Your task to perform on an android device: make emails show in primary in the gmail app Image 0: 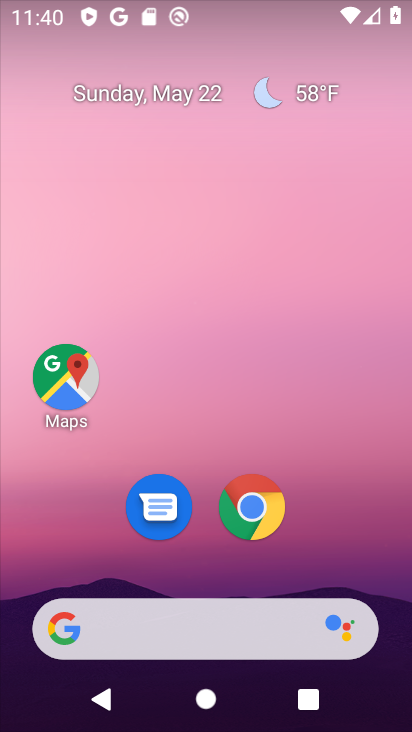
Step 0: drag from (247, 577) to (247, 138)
Your task to perform on an android device: make emails show in primary in the gmail app Image 1: 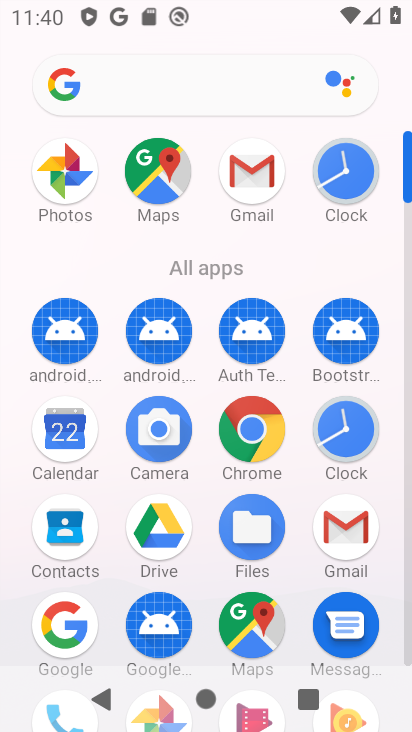
Step 1: drag from (247, 695) to (300, 126)
Your task to perform on an android device: make emails show in primary in the gmail app Image 2: 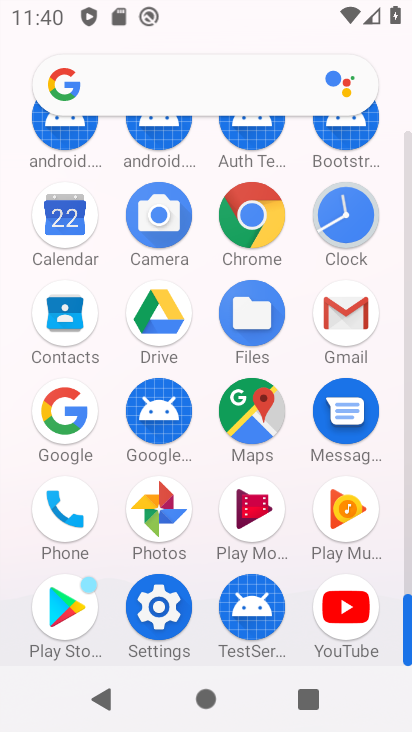
Step 2: click (354, 304)
Your task to perform on an android device: make emails show in primary in the gmail app Image 3: 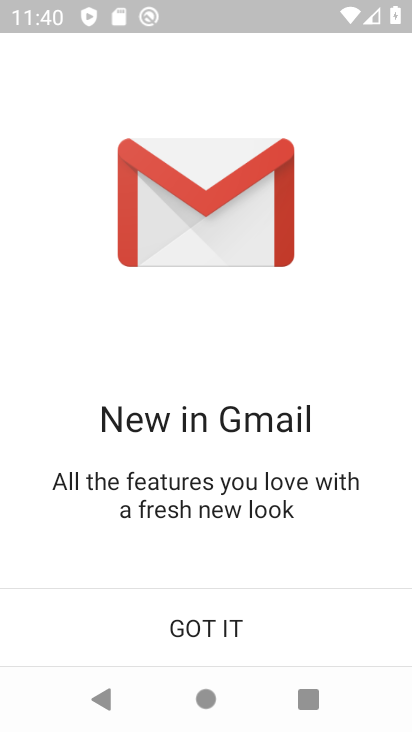
Step 3: click (237, 615)
Your task to perform on an android device: make emails show in primary in the gmail app Image 4: 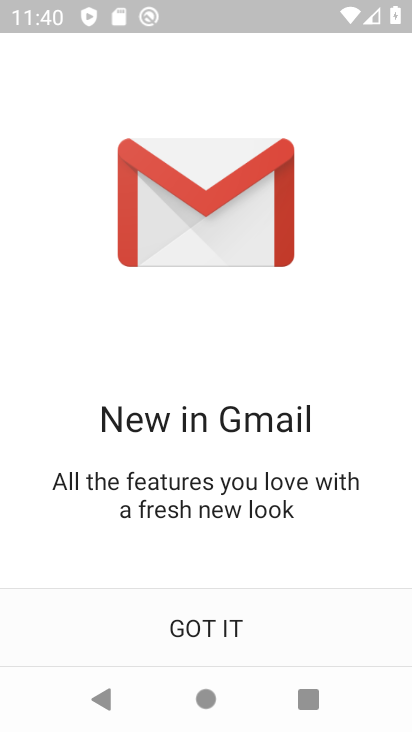
Step 4: click (237, 615)
Your task to perform on an android device: make emails show in primary in the gmail app Image 5: 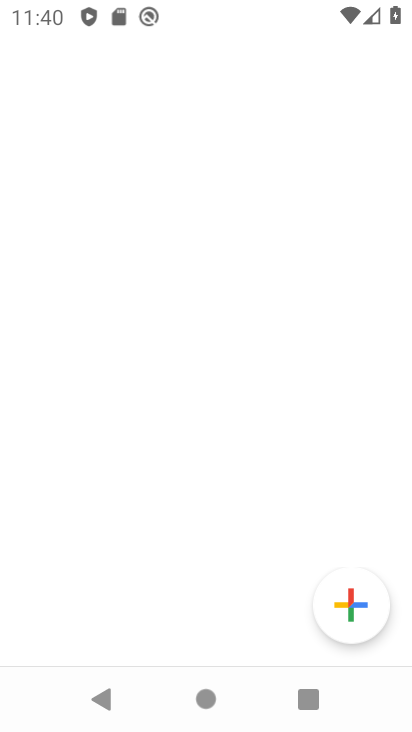
Step 5: click (263, 634)
Your task to perform on an android device: make emails show in primary in the gmail app Image 6: 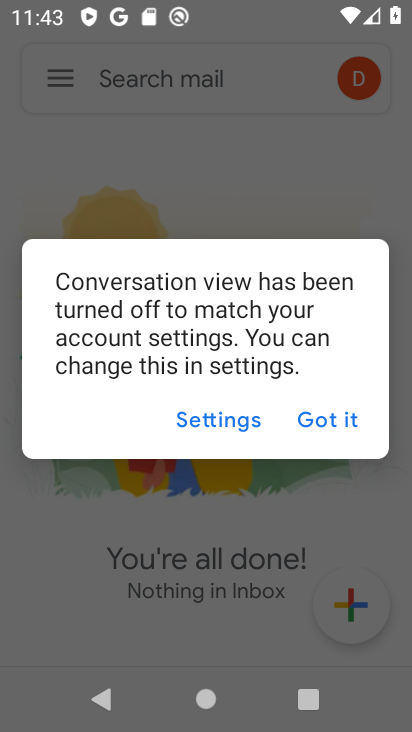
Step 6: press home button
Your task to perform on an android device: make emails show in primary in the gmail app Image 7: 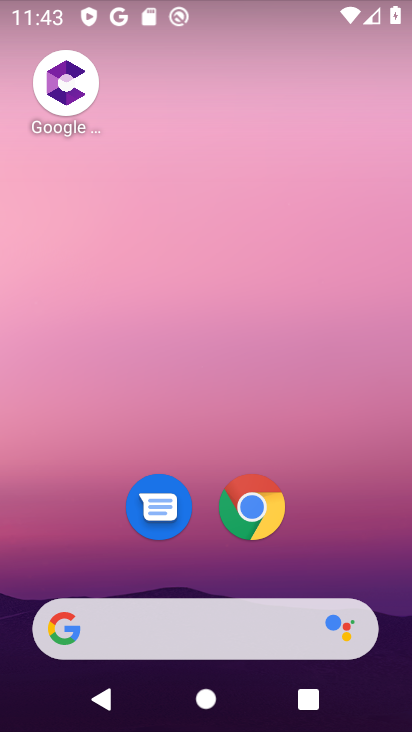
Step 7: drag from (253, 630) to (294, 177)
Your task to perform on an android device: make emails show in primary in the gmail app Image 8: 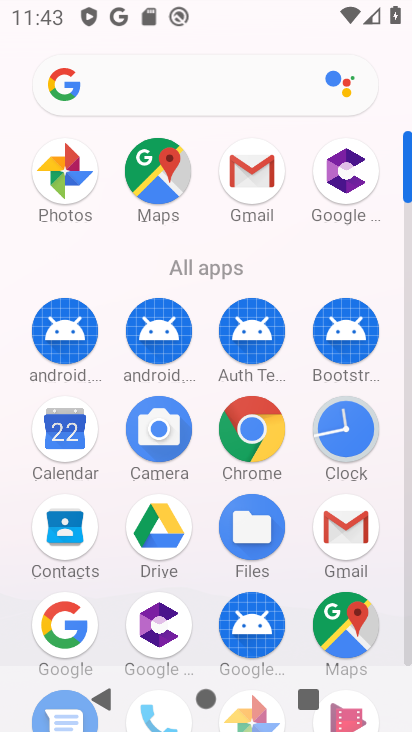
Step 8: click (251, 178)
Your task to perform on an android device: make emails show in primary in the gmail app Image 9: 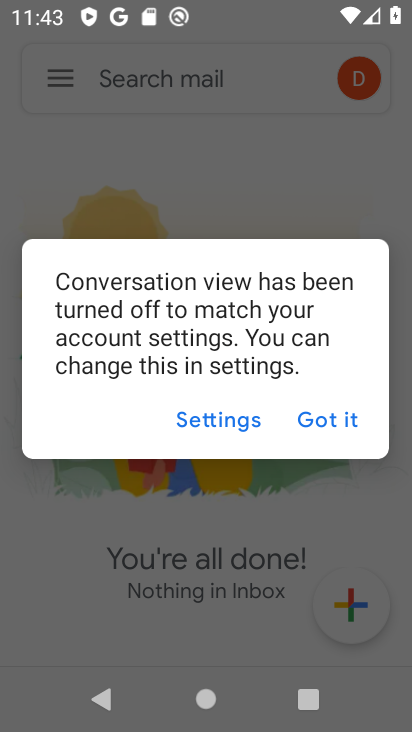
Step 9: click (335, 427)
Your task to perform on an android device: make emails show in primary in the gmail app Image 10: 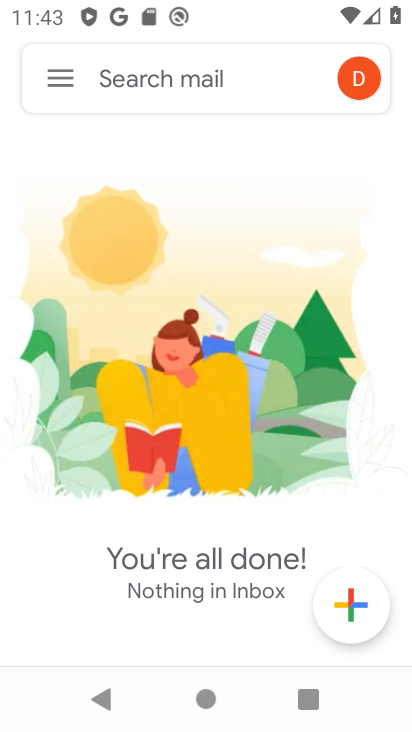
Step 10: click (54, 80)
Your task to perform on an android device: make emails show in primary in the gmail app Image 11: 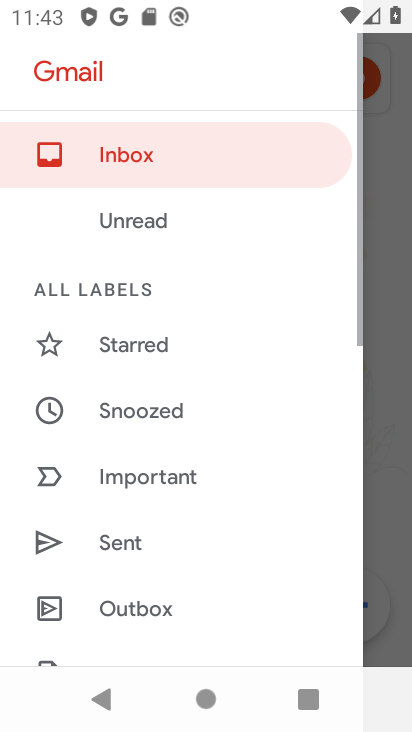
Step 11: drag from (142, 330) to (191, 23)
Your task to perform on an android device: make emails show in primary in the gmail app Image 12: 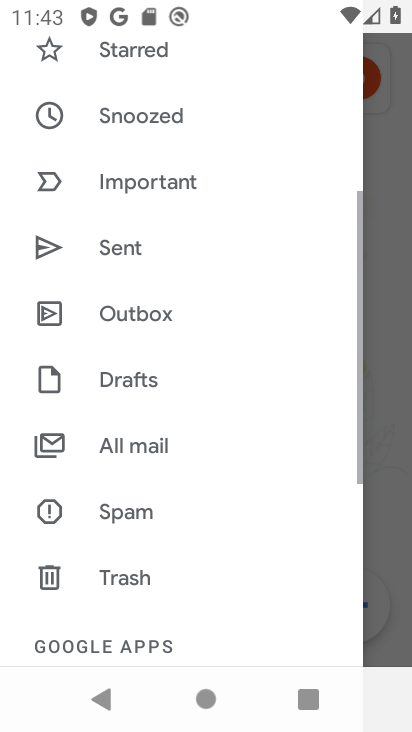
Step 12: drag from (202, 614) to (289, 9)
Your task to perform on an android device: make emails show in primary in the gmail app Image 13: 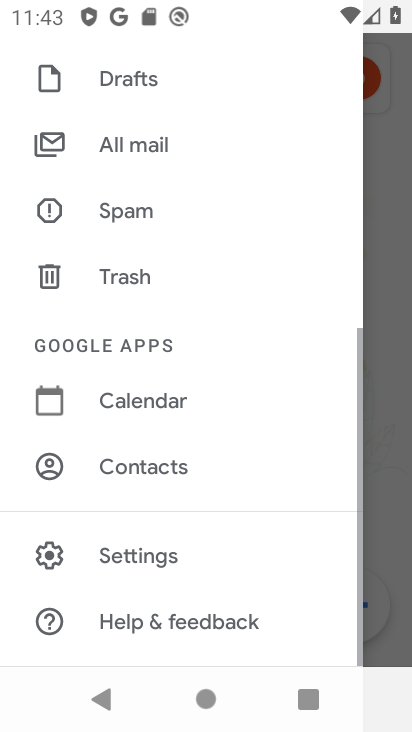
Step 13: click (177, 551)
Your task to perform on an android device: make emails show in primary in the gmail app Image 14: 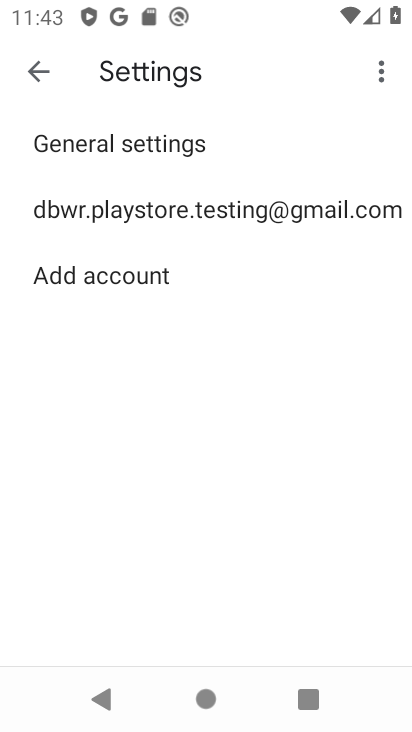
Step 14: click (113, 204)
Your task to perform on an android device: make emails show in primary in the gmail app Image 15: 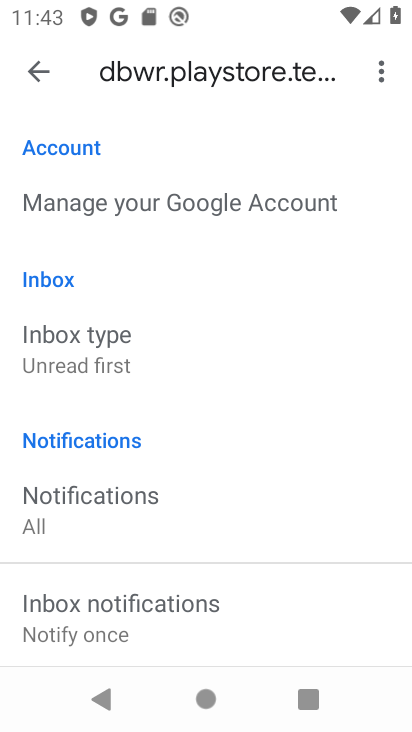
Step 15: click (83, 359)
Your task to perform on an android device: make emails show in primary in the gmail app Image 16: 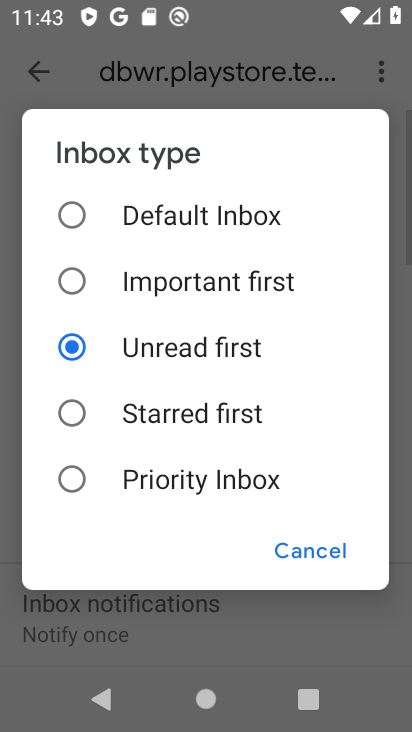
Step 16: click (235, 227)
Your task to perform on an android device: make emails show in primary in the gmail app Image 17: 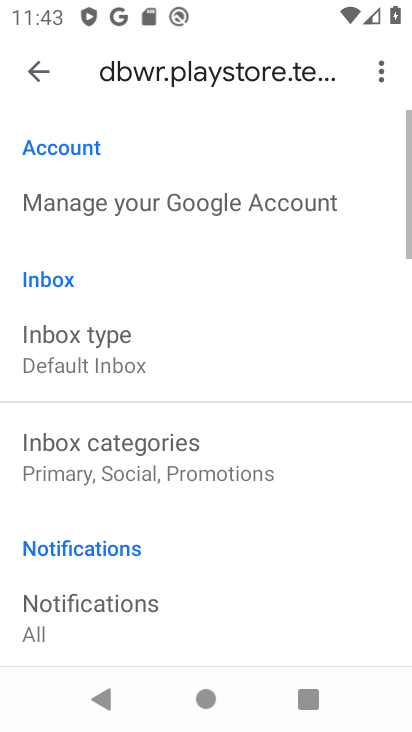
Step 17: click (159, 468)
Your task to perform on an android device: make emails show in primary in the gmail app Image 18: 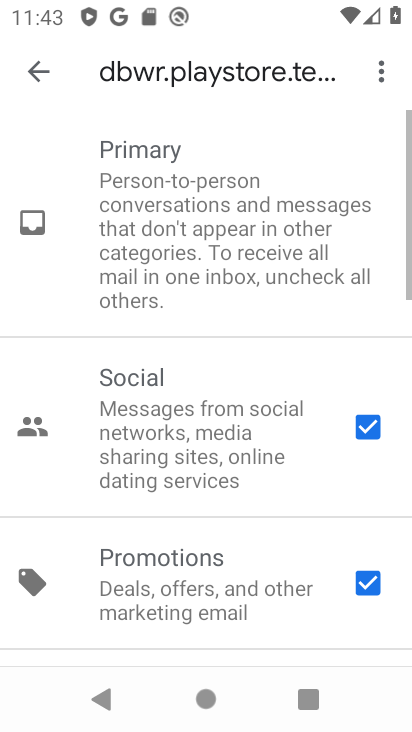
Step 18: click (365, 428)
Your task to perform on an android device: make emails show in primary in the gmail app Image 19: 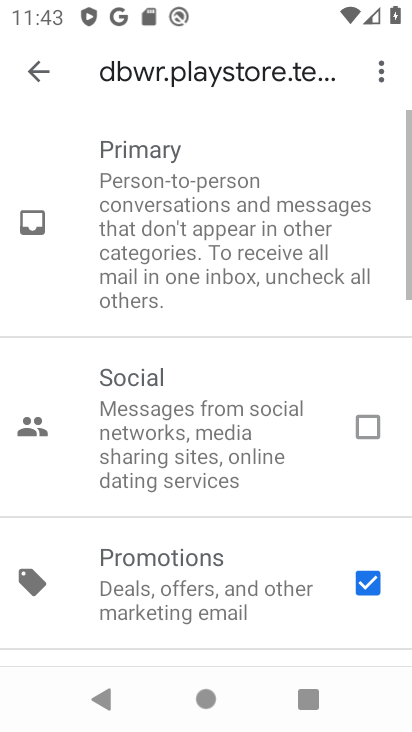
Step 19: click (369, 590)
Your task to perform on an android device: make emails show in primary in the gmail app Image 20: 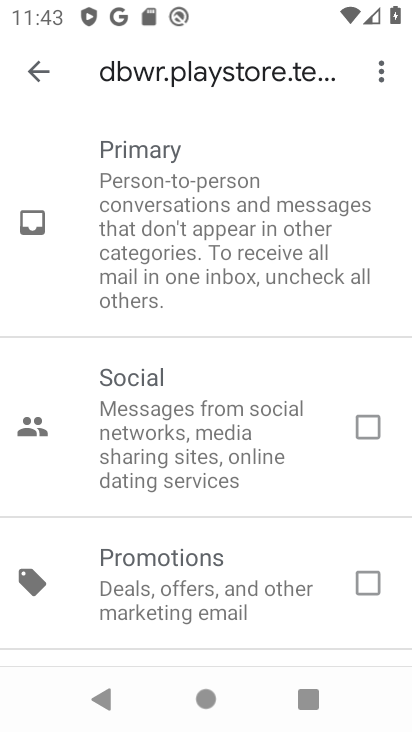
Step 20: task complete